Your task to perform on an android device: turn smart compose on in the gmail app Image 0: 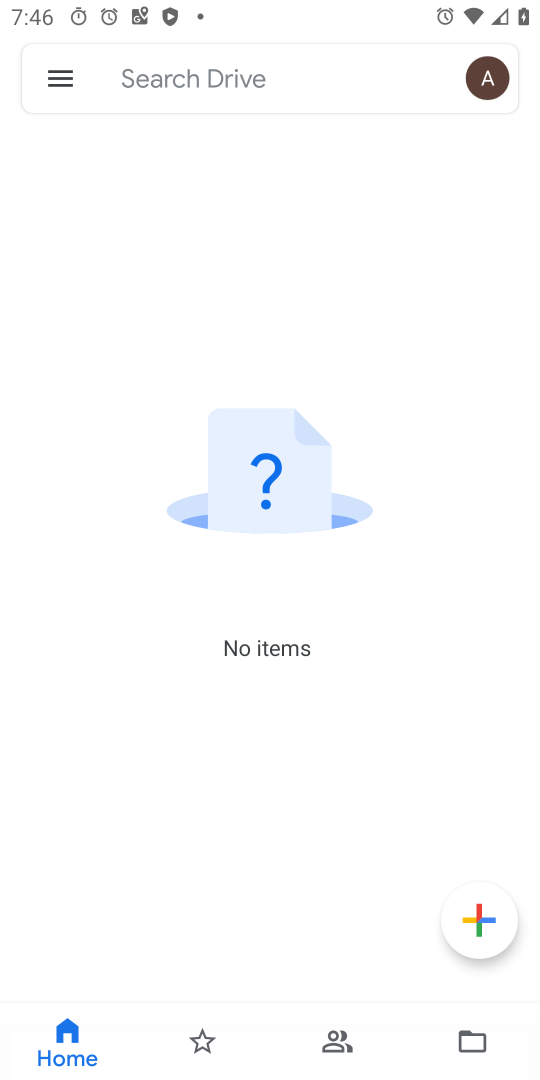
Step 0: press home button
Your task to perform on an android device: turn smart compose on in the gmail app Image 1: 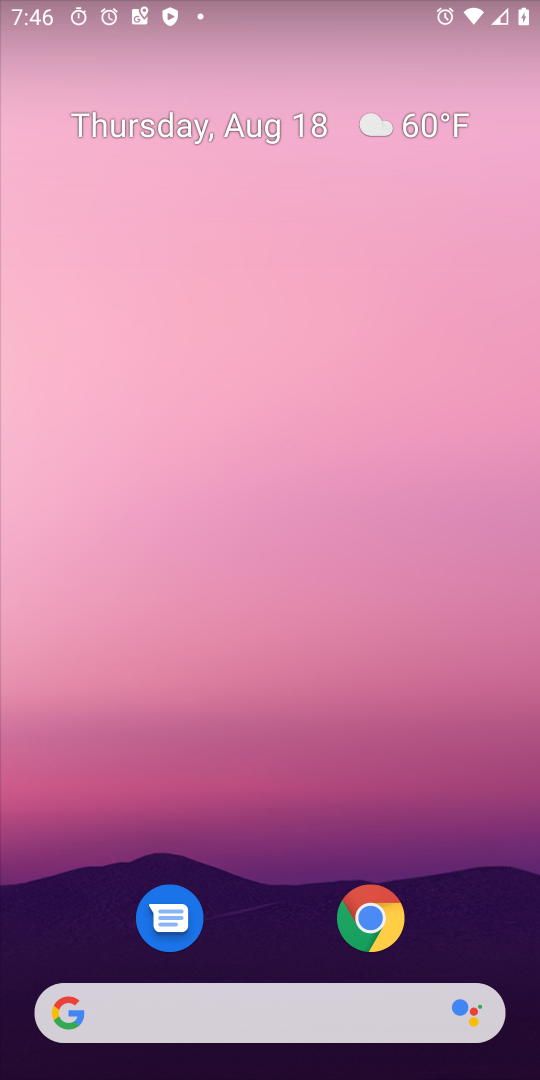
Step 1: drag from (273, 869) to (314, 160)
Your task to perform on an android device: turn smart compose on in the gmail app Image 2: 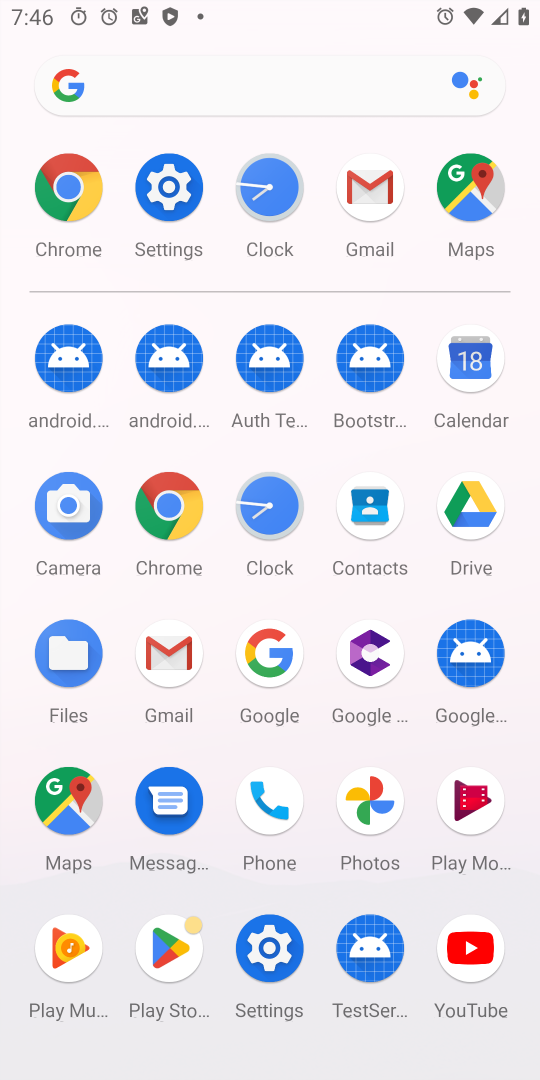
Step 2: click (375, 200)
Your task to perform on an android device: turn smart compose on in the gmail app Image 3: 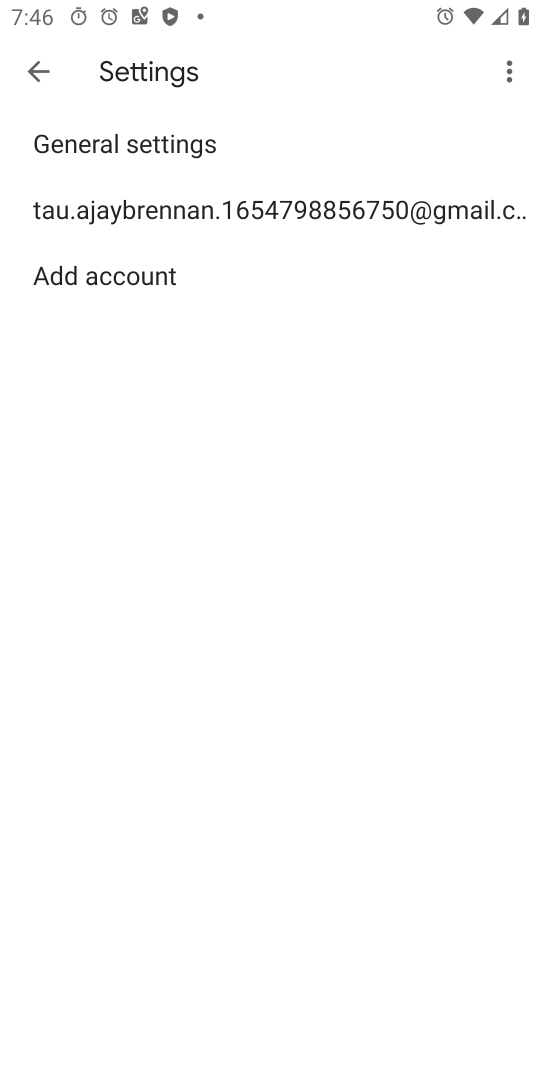
Step 3: click (227, 212)
Your task to perform on an android device: turn smart compose on in the gmail app Image 4: 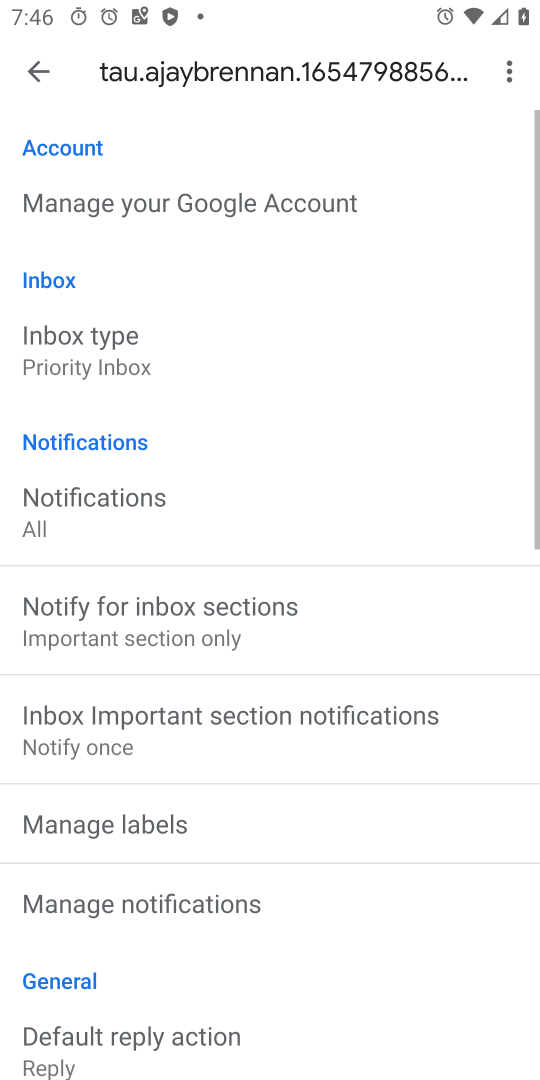
Step 4: task complete